Your task to perform on an android device: turn off improve location accuracy Image 0: 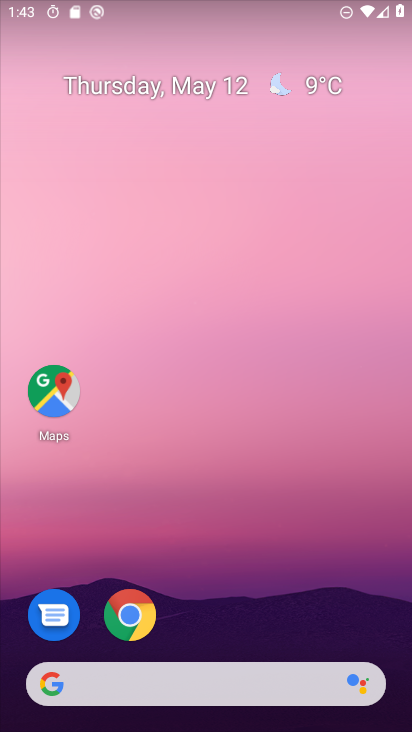
Step 0: drag from (324, 603) to (270, 92)
Your task to perform on an android device: turn off improve location accuracy Image 1: 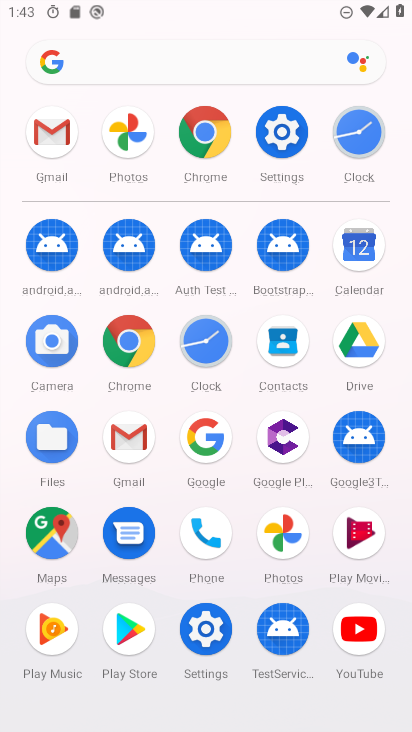
Step 1: click (296, 136)
Your task to perform on an android device: turn off improve location accuracy Image 2: 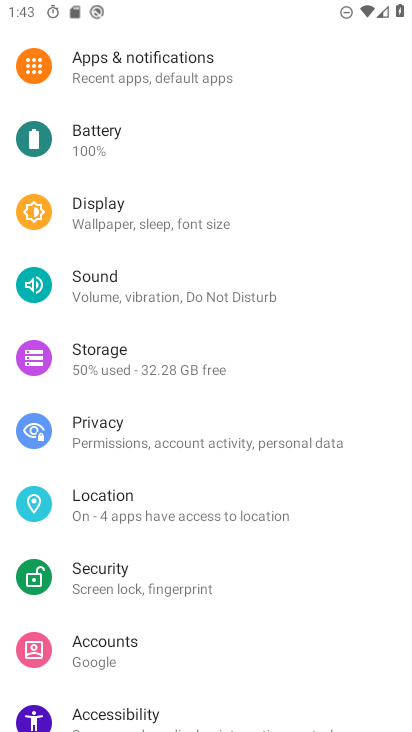
Step 2: drag from (234, 569) to (229, 707)
Your task to perform on an android device: turn off improve location accuracy Image 3: 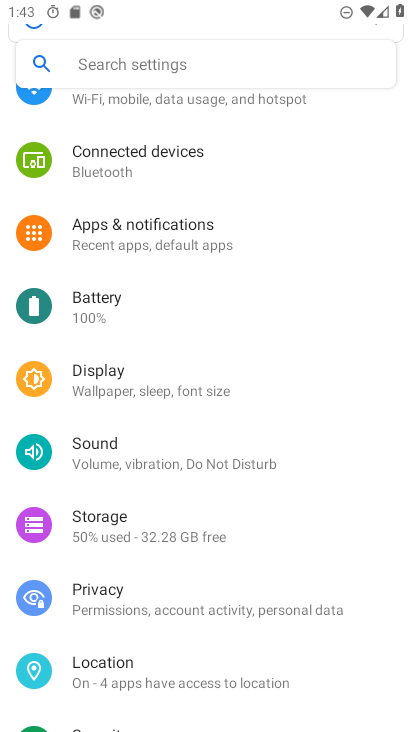
Step 3: drag from (225, 305) to (225, 618)
Your task to perform on an android device: turn off improve location accuracy Image 4: 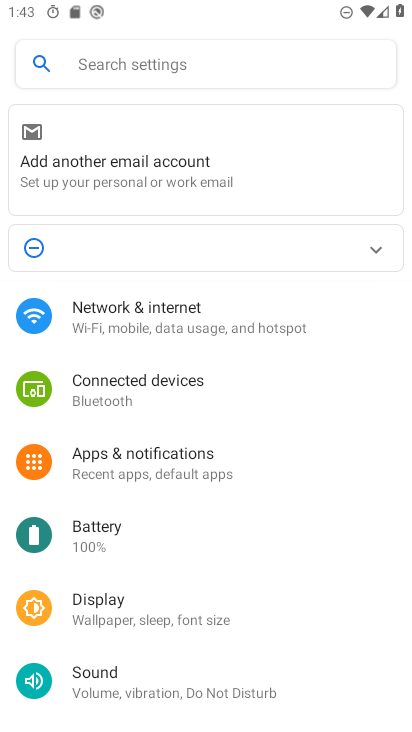
Step 4: drag from (222, 606) to (223, 232)
Your task to perform on an android device: turn off improve location accuracy Image 5: 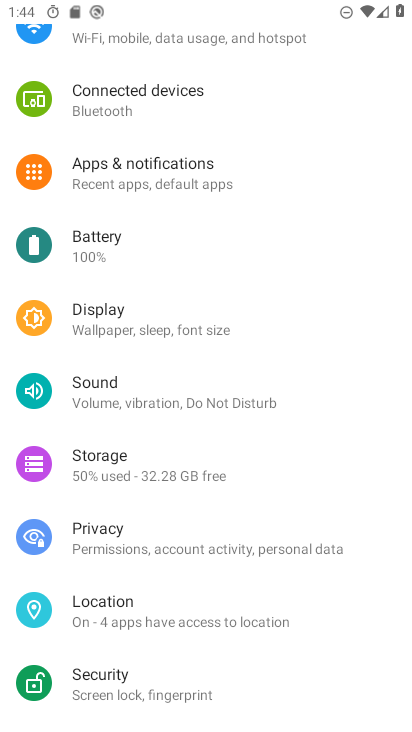
Step 5: drag from (206, 217) to (241, 138)
Your task to perform on an android device: turn off improve location accuracy Image 6: 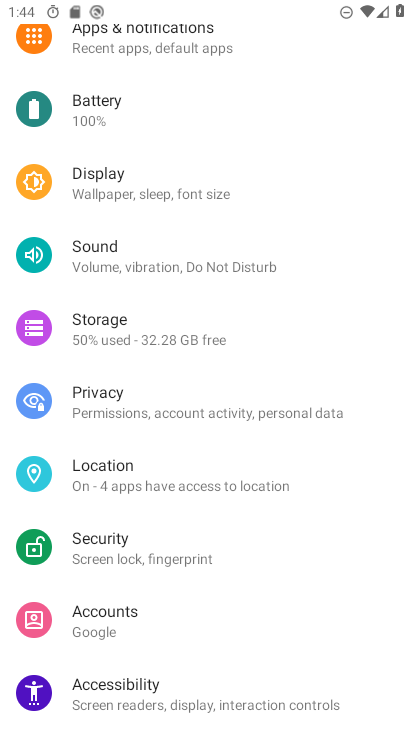
Step 6: click (222, 493)
Your task to perform on an android device: turn off improve location accuracy Image 7: 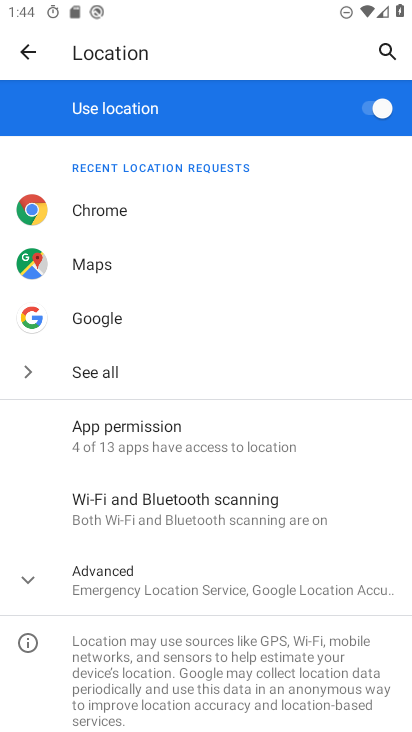
Step 7: click (101, 578)
Your task to perform on an android device: turn off improve location accuracy Image 8: 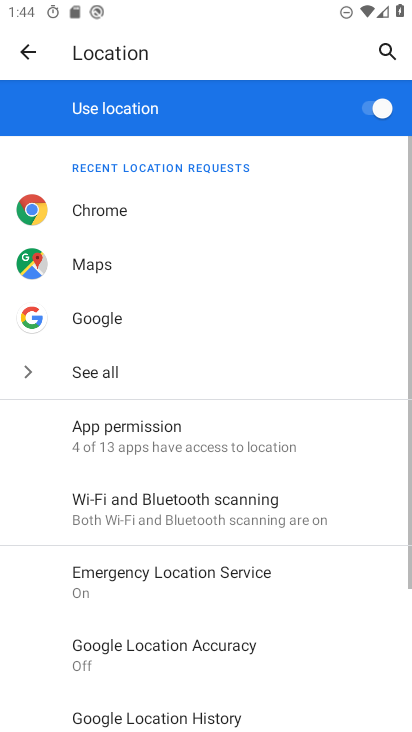
Step 8: drag from (261, 695) to (310, 404)
Your task to perform on an android device: turn off improve location accuracy Image 9: 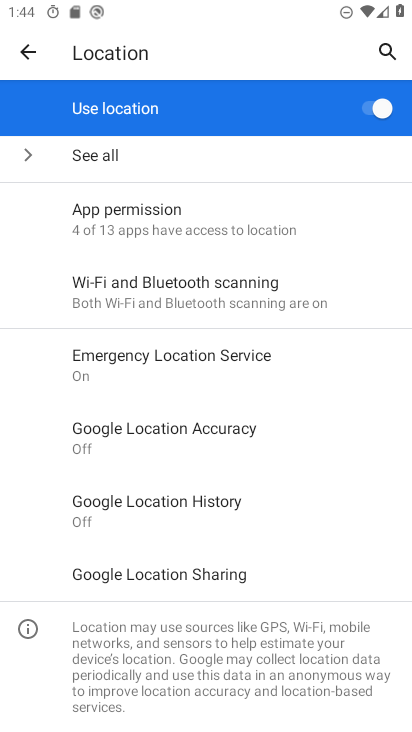
Step 9: click (184, 433)
Your task to perform on an android device: turn off improve location accuracy Image 10: 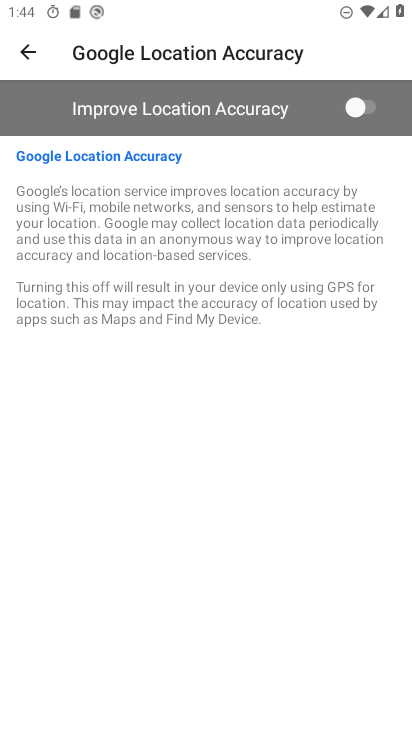
Step 10: task complete